Your task to perform on an android device: Open Yahoo.com Image 0: 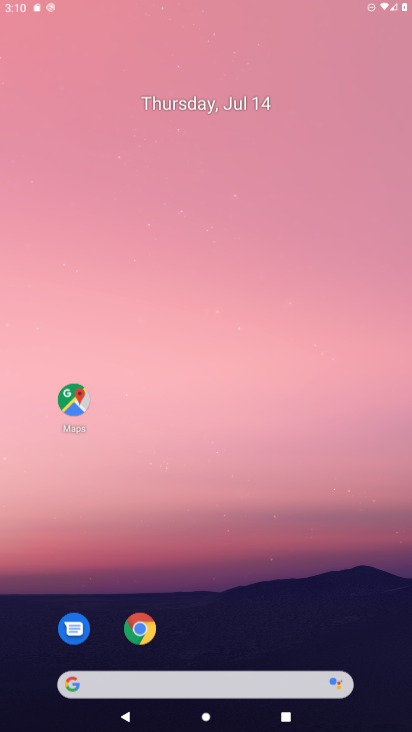
Step 0: press home button
Your task to perform on an android device: Open Yahoo.com Image 1: 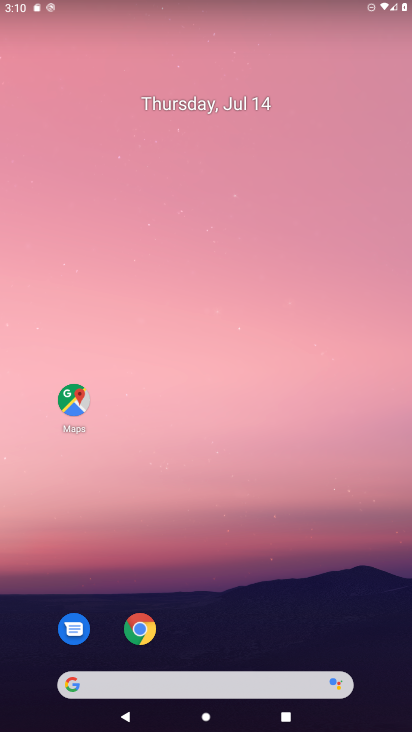
Step 1: click (139, 622)
Your task to perform on an android device: Open Yahoo.com Image 2: 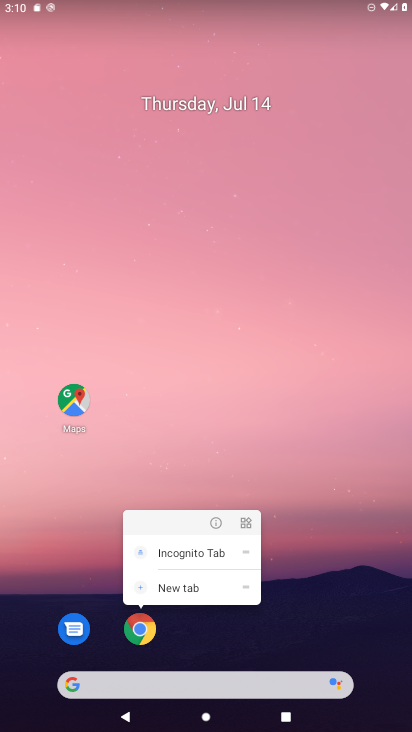
Step 2: click (146, 623)
Your task to perform on an android device: Open Yahoo.com Image 3: 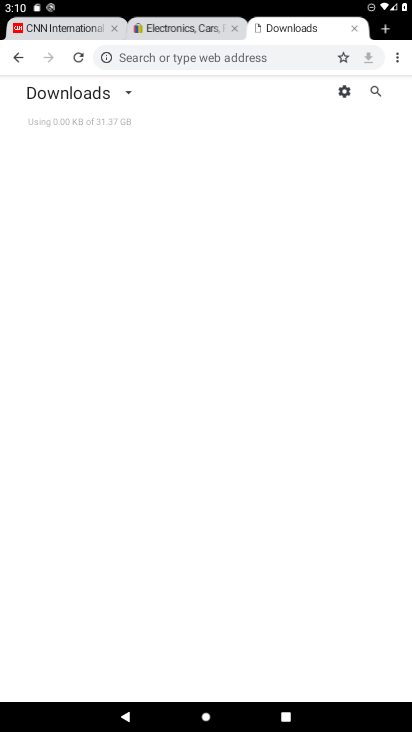
Step 3: click (355, 29)
Your task to perform on an android device: Open Yahoo.com Image 4: 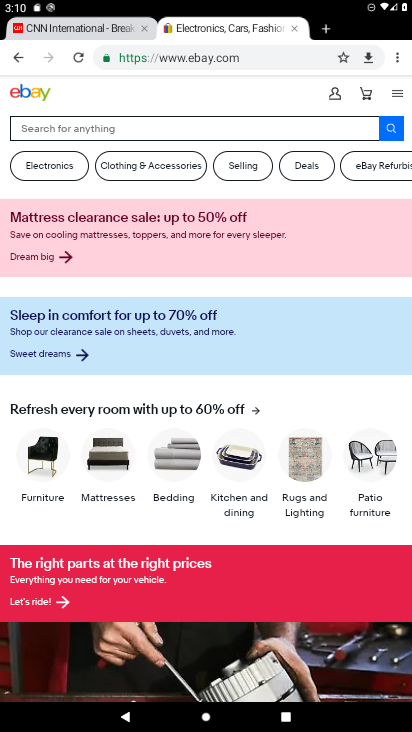
Step 4: click (293, 32)
Your task to perform on an android device: Open Yahoo.com Image 5: 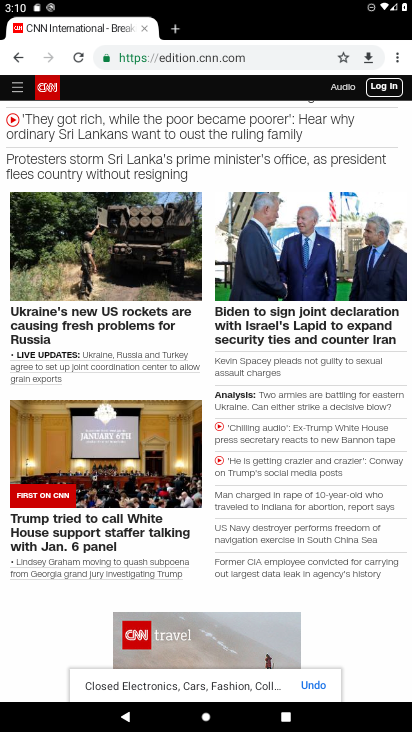
Step 5: click (173, 21)
Your task to perform on an android device: Open Yahoo.com Image 6: 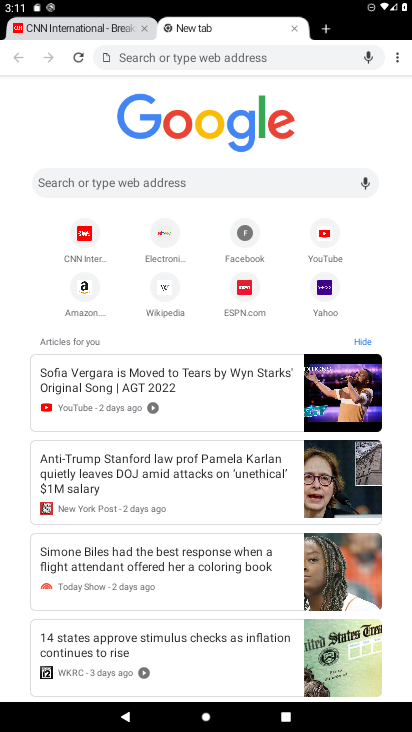
Step 6: click (323, 292)
Your task to perform on an android device: Open Yahoo.com Image 7: 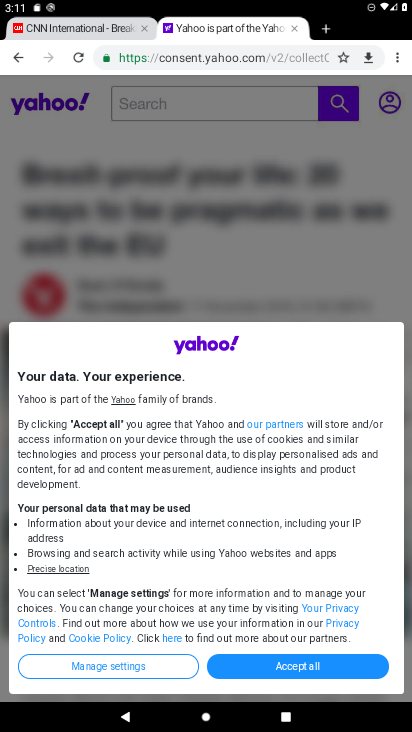
Step 7: click (304, 666)
Your task to perform on an android device: Open Yahoo.com Image 8: 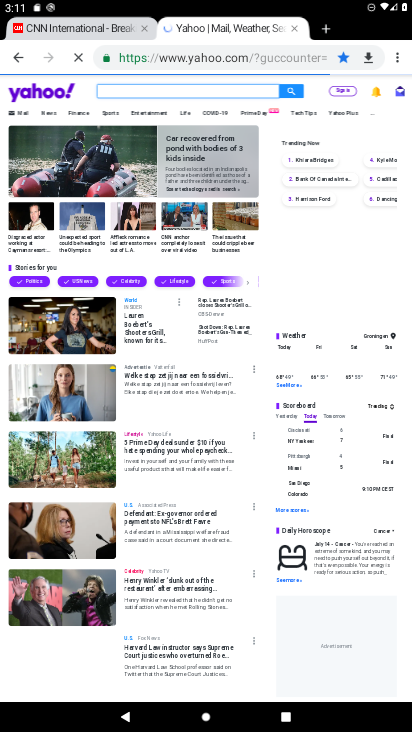
Step 8: task complete